Your task to perform on an android device: Clear the cart on costco.com. Add dell alienware to the cart on costco.com, then select checkout. Image 0: 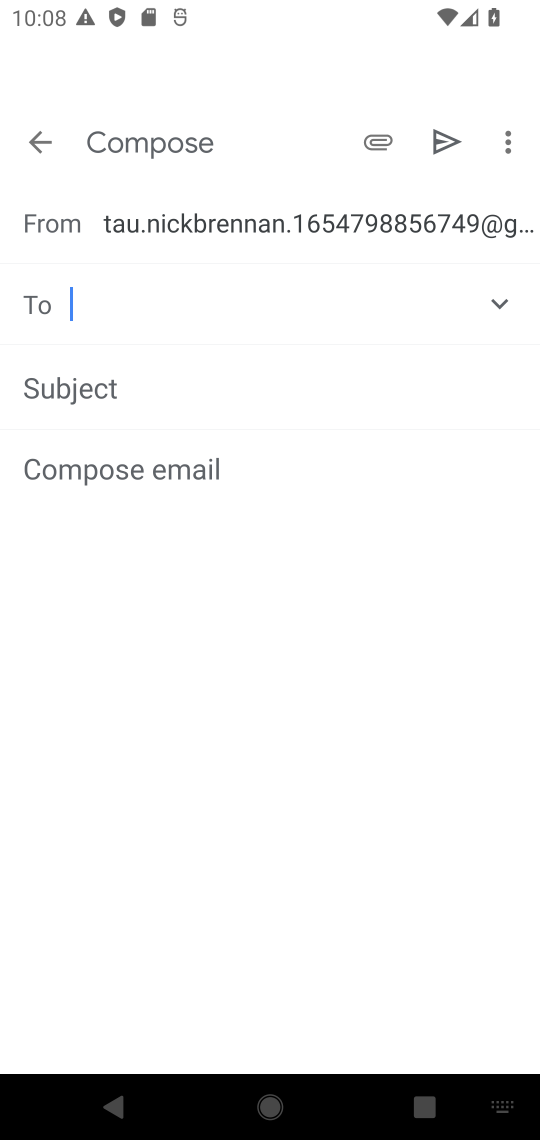
Step 0: press home button
Your task to perform on an android device: Clear the cart on costco.com. Add dell alienware to the cart on costco.com, then select checkout. Image 1: 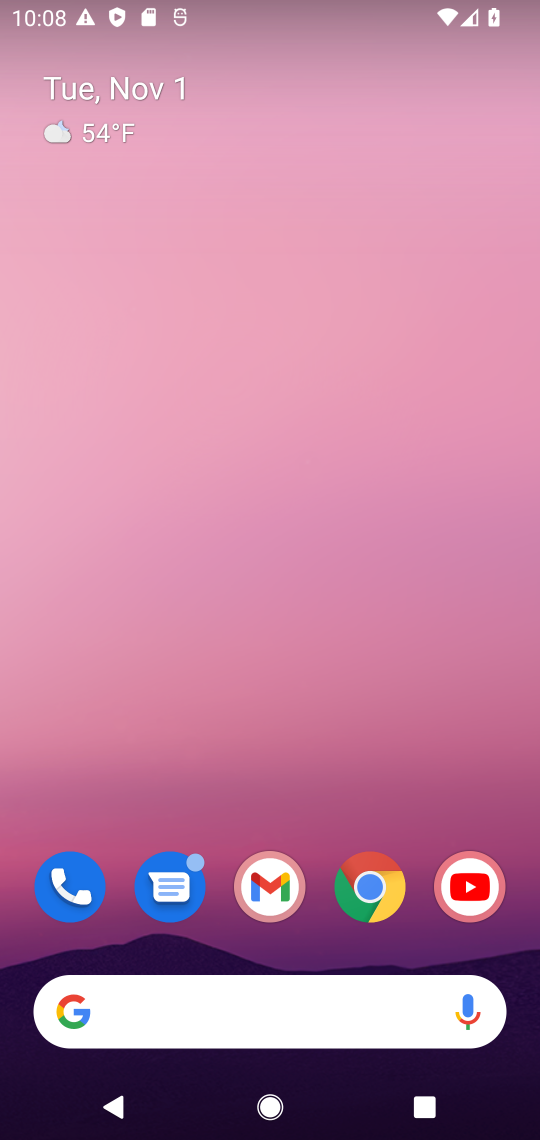
Step 1: drag from (234, 957) to (245, 384)
Your task to perform on an android device: Clear the cart on costco.com. Add dell alienware to the cart on costco.com, then select checkout. Image 2: 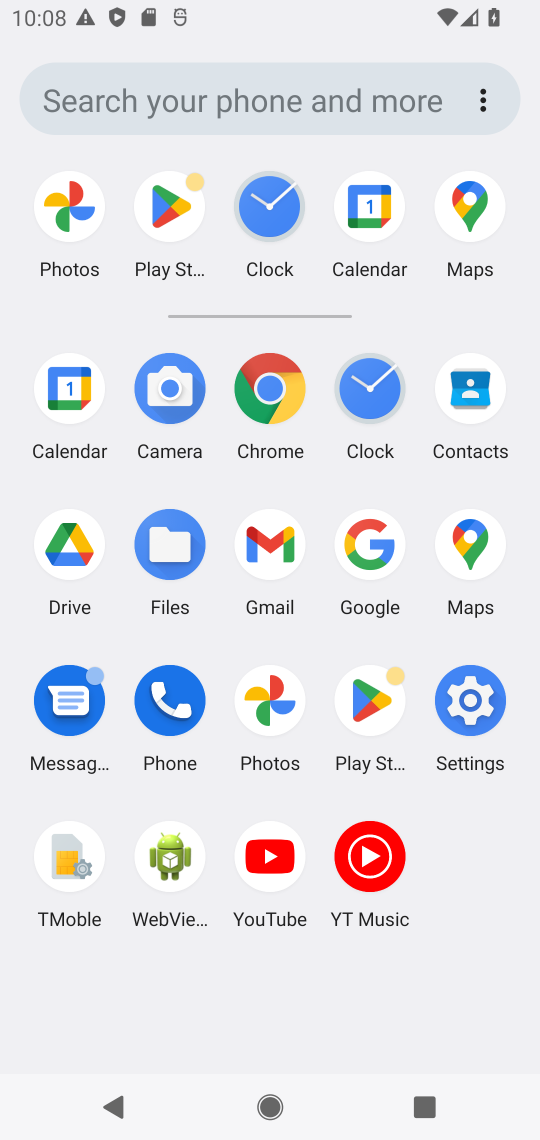
Step 2: click (365, 548)
Your task to perform on an android device: Clear the cart on costco.com. Add dell alienware to the cart on costco.com, then select checkout. Image 3: 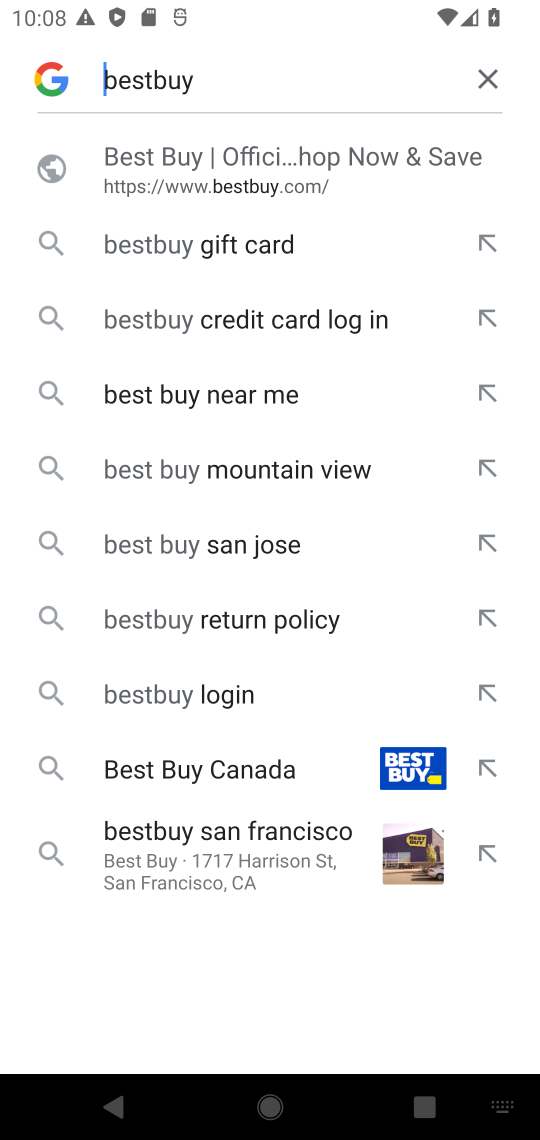
Step 3: click (485, 77)
Your task to perform on an android device: Clear the cart on costco.com. Add dell alienware to the cart on costco.com, then select checkout. Image 4: 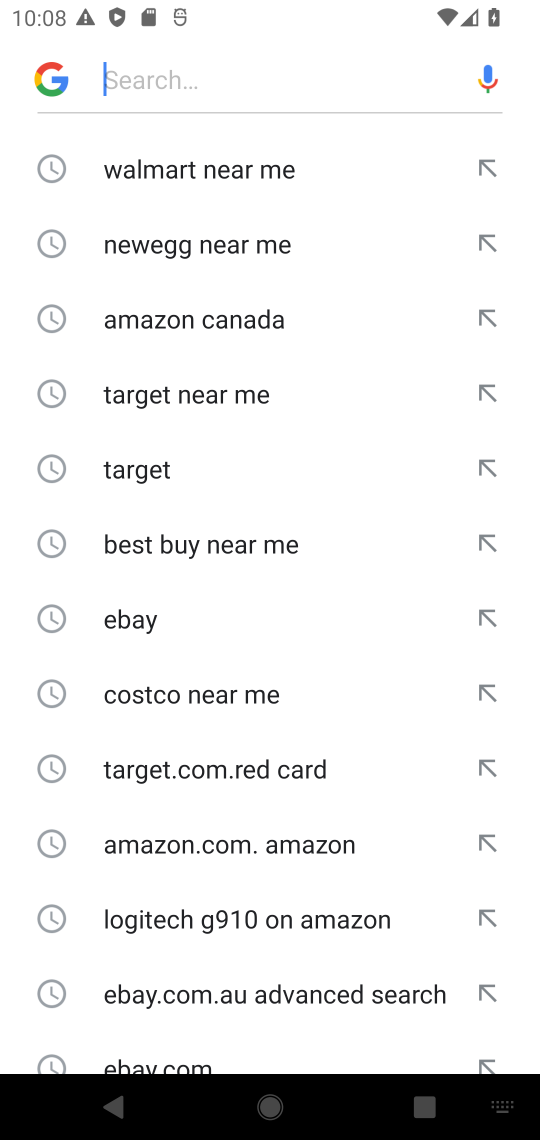
Step 4: click (172, 687)
Your task to perform on an android device: Clear the cart on costco.com. Add dell alienware to the cart on costco.com, then select checkout. Image 5: 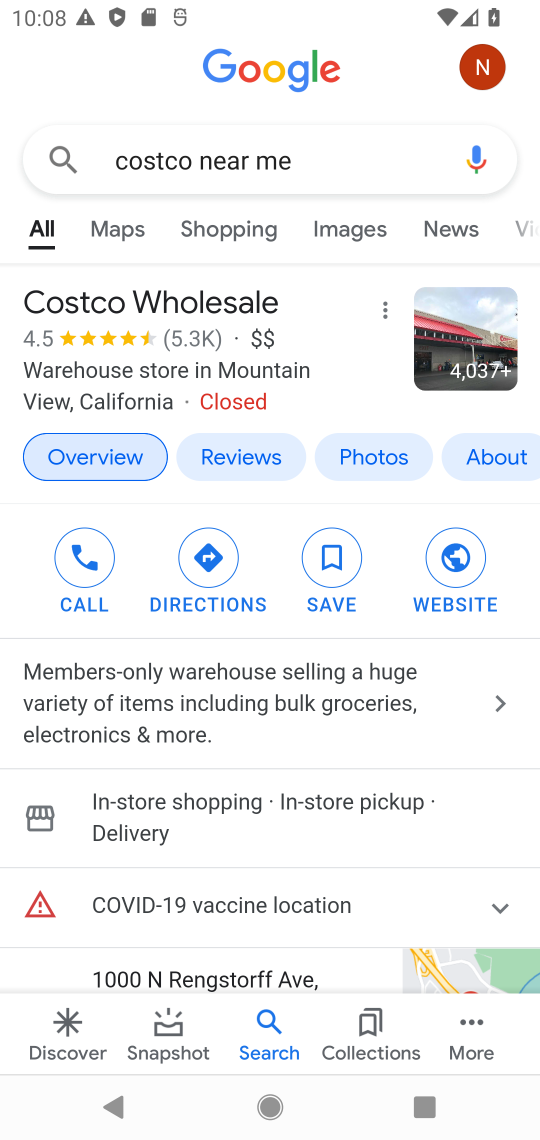
Step 5: drag from (217, 907) to (248, 207)
Your task to perform on an android device: Clear the cart on costco.com. Add dell alienware to the cart on costco.com, then select checkout. Image 6: 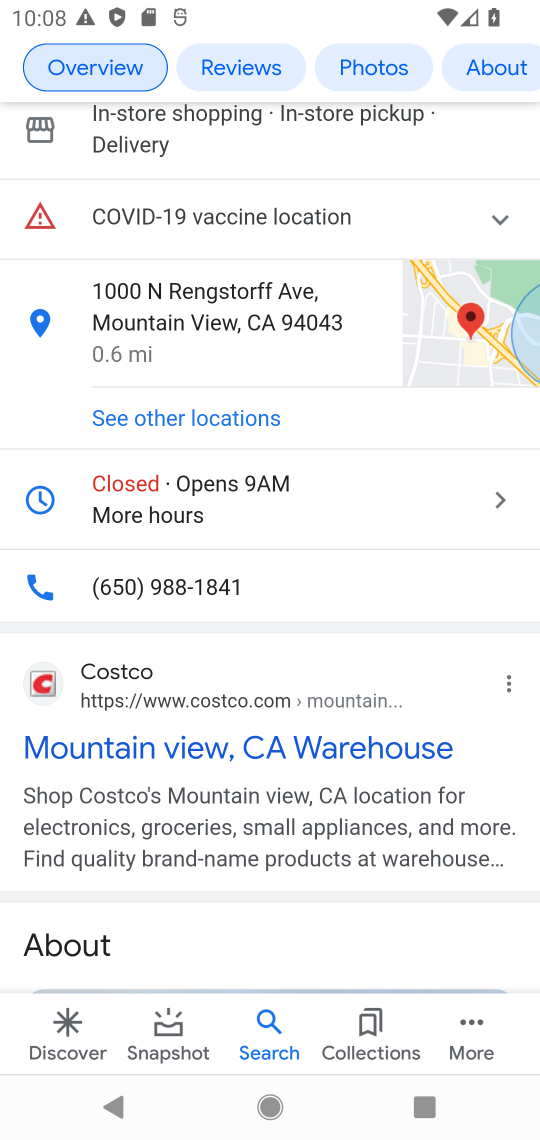
Step 6: click (40, 680)
Your task to perform on an android device: Clear the cart on costco.com. Add dell alienware to the cart on costco.com, then select checkout. Image 7: 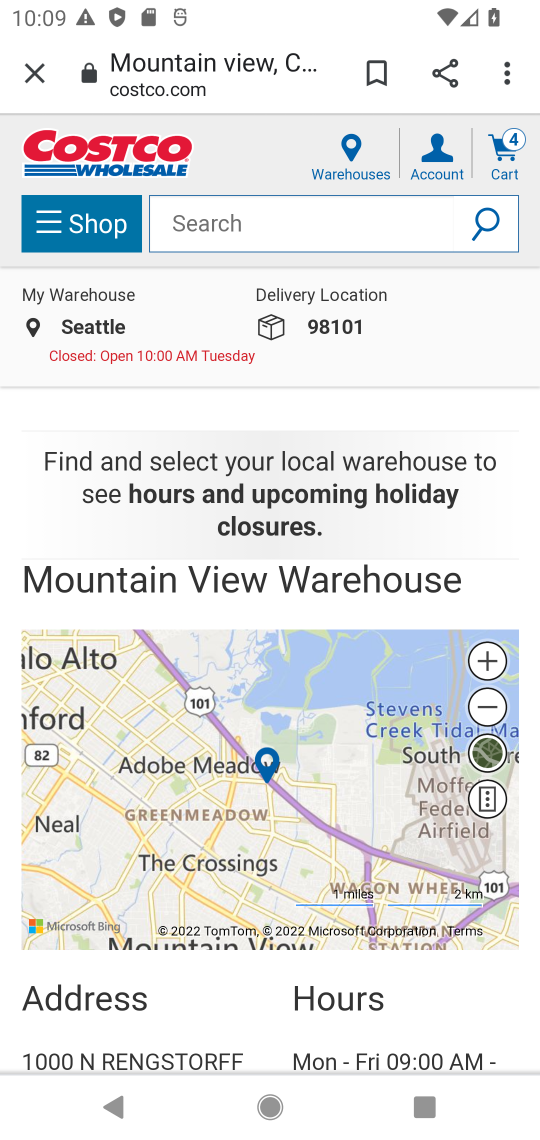
Step 7: click (364, 225)
Your task to perform on an android device: Clear the cart on costco.com. Add dell alienware to the cart on costco.com, then select checkout. Image 8: 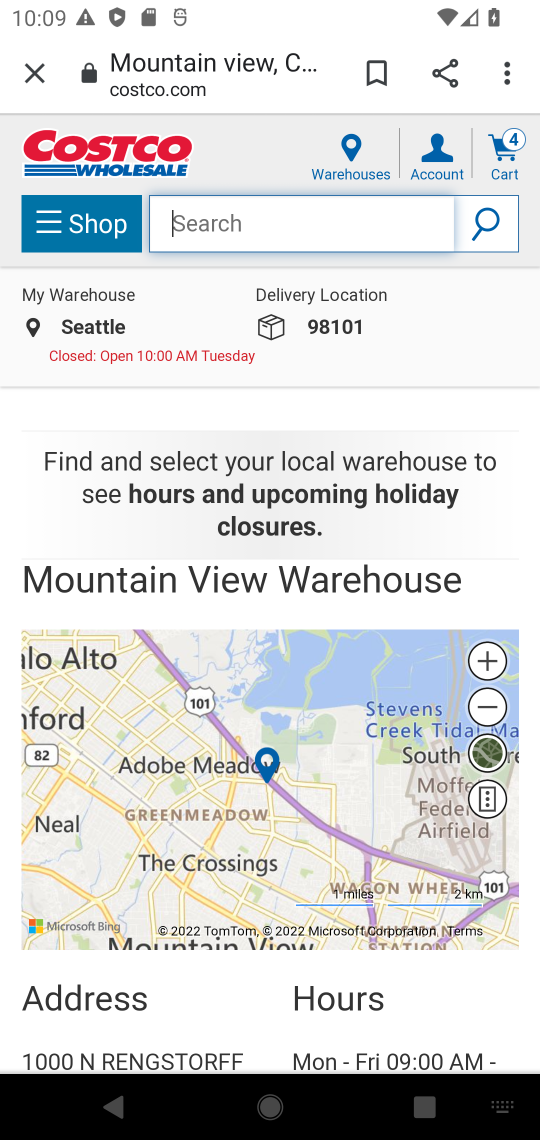
Step 8: type " dell alienware  "
Your task to perform on an android device: Clear the cart on costco.com. Add dell alienware to the cart on costco.com, then select checkout. Image 9: 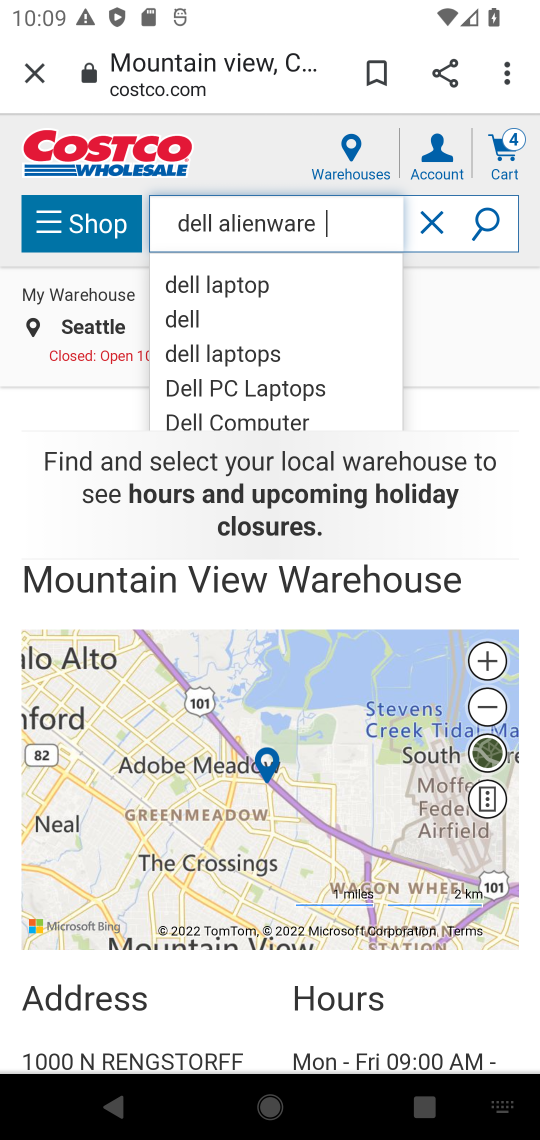
Step 9: click (209, 277)
Your task to perform on an android device: Clear the cart on costco.com. Add dell alienware to the cart on costco.com, then select checkout. Image 10: 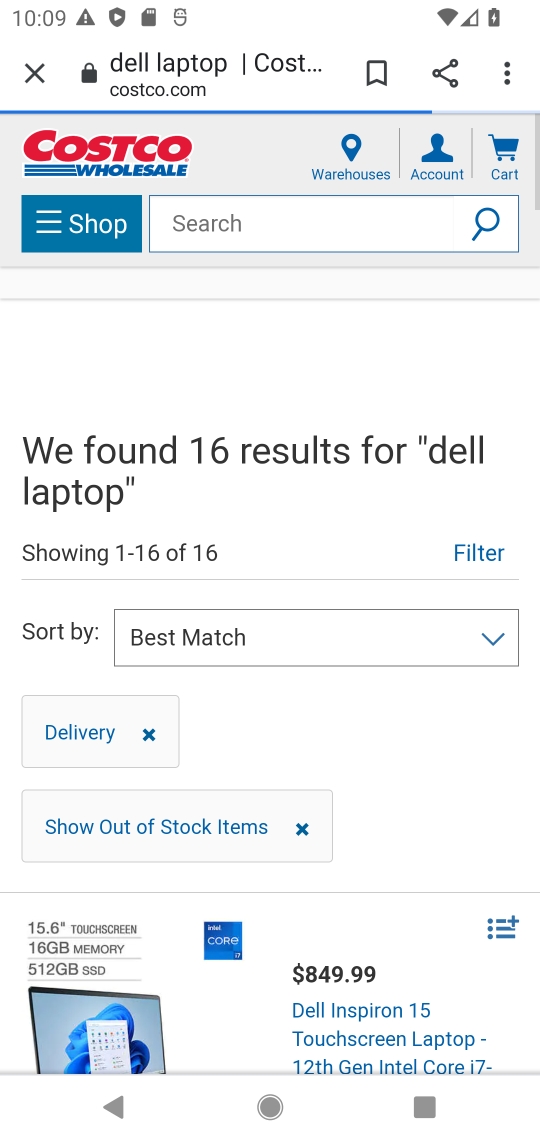
Step 10: click (472, 224)
Your task to perform on an android device: Clear the cart on costco.com. Add dell alienware to the cart on costco.com, then select checkout. Image 11: 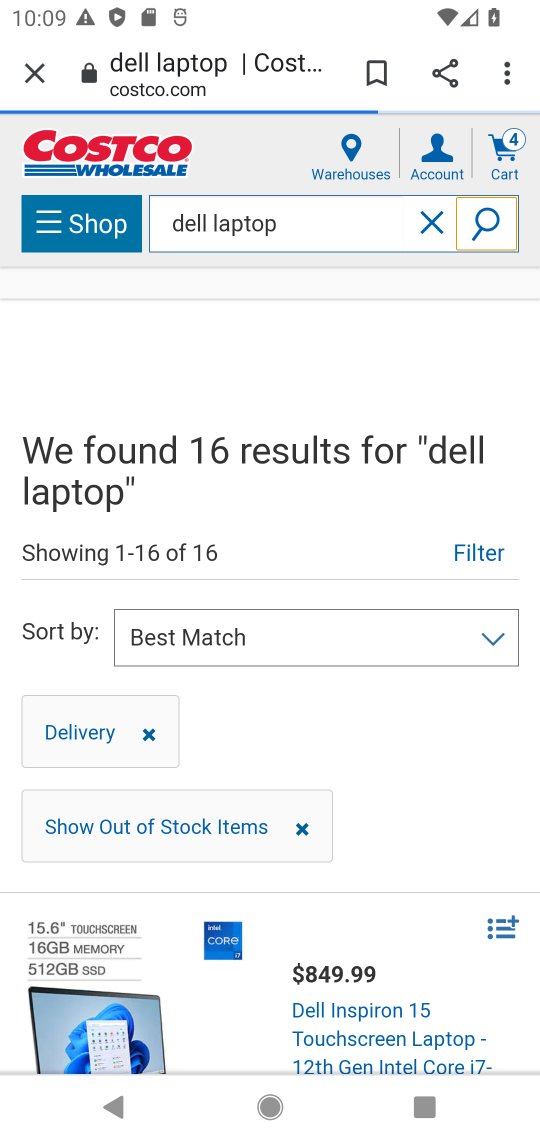
Step 11: drag from (436, 880) to (410, 320)
Your task to perform on an android device: Clear the cart on costco.com. Add dell alienware to the cart on costco.com, then select checkout. Image 12: 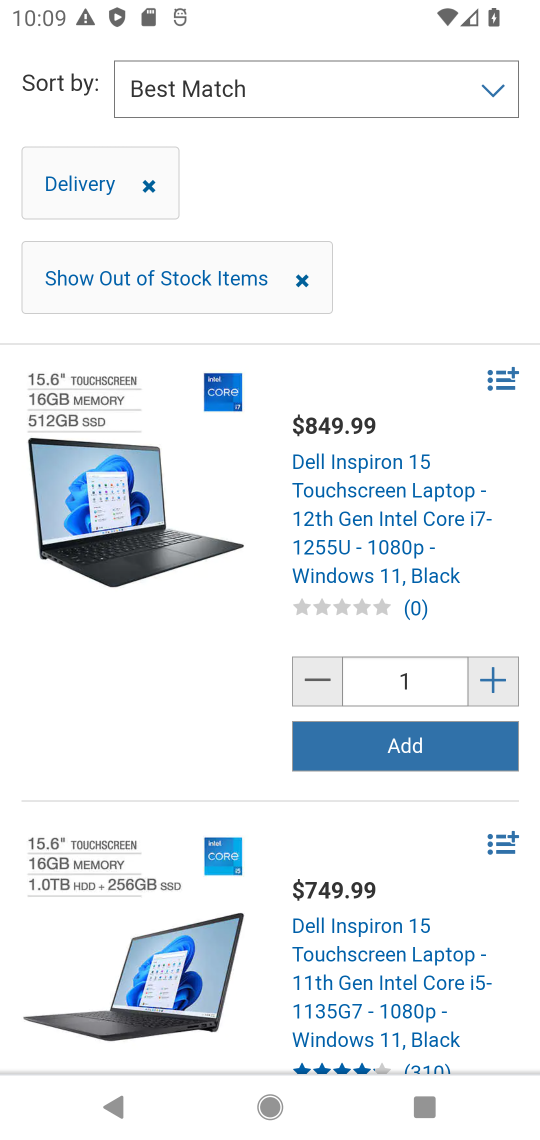
Step 12: click (408, 745)
Your task to perform on an android device: Clear the cart on costco.com. Add dell alienware to the cart on costco.com, then select checkout. Image 13: 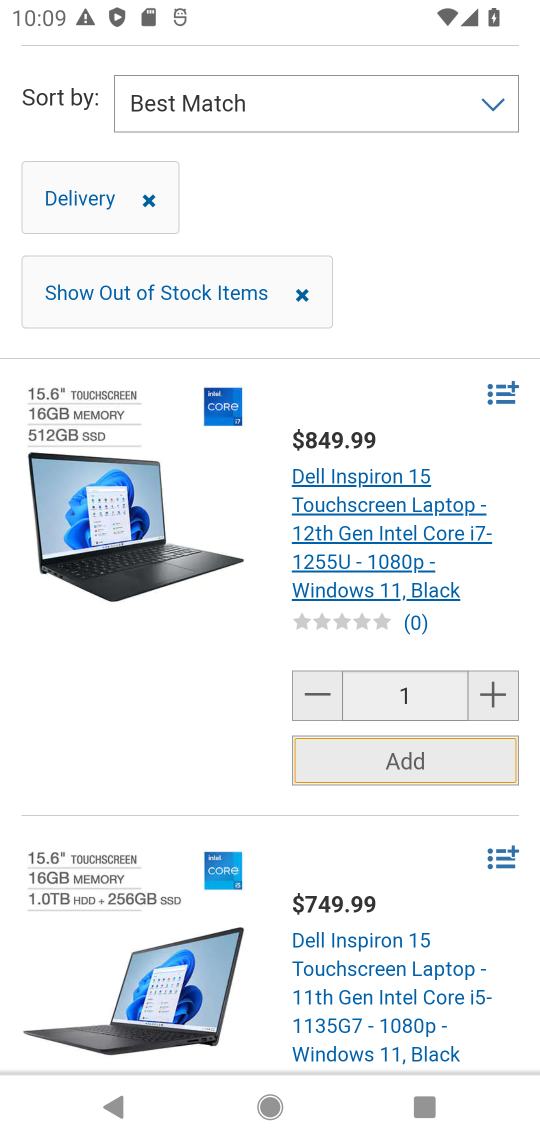
Step 13: task complete